Your task to perform on an android device: Open location settings Image 0: 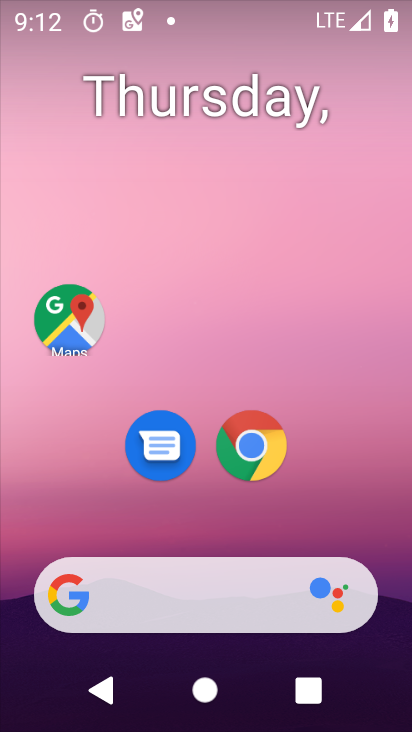
Step 0: drag from (196, 509) to (249, 197)
Your task to perform on an android device: Open location settings Image 1: 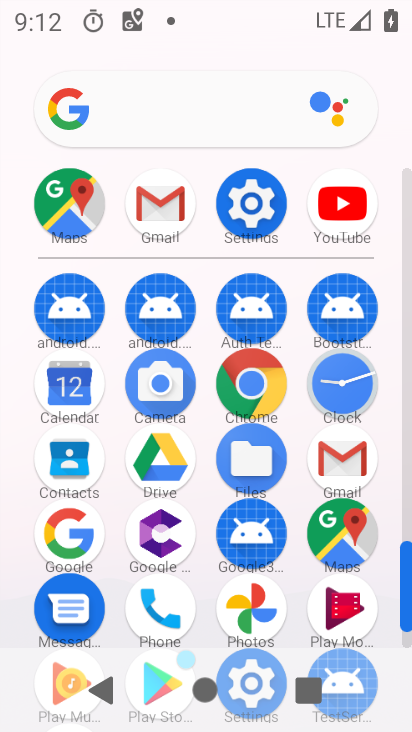
Step 1: click (273, 197)
Your task to perform on an android device: Open location settings Image 2: 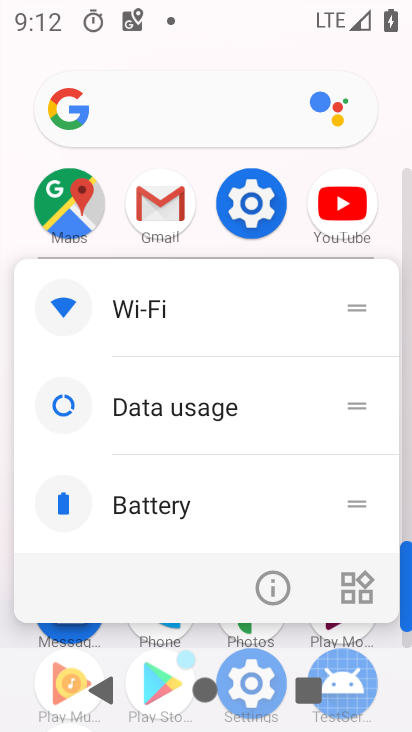
Step 2: click (274, 549)
Your task to perform on an android device: Open location settings Image 3: 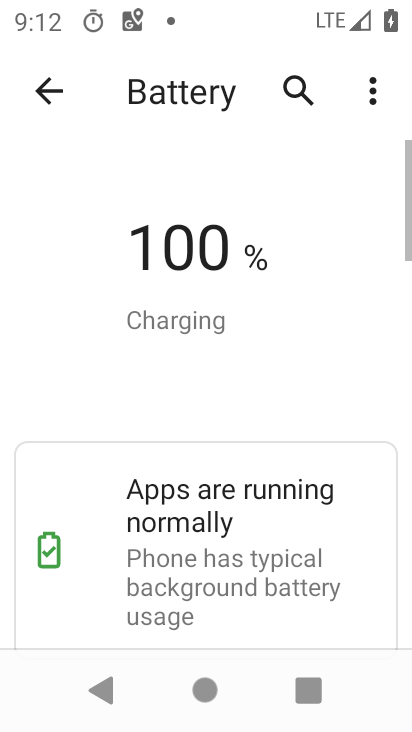
Step 3: click (51, 97)
Your task to perform on an android device: Open location settings Image 4: 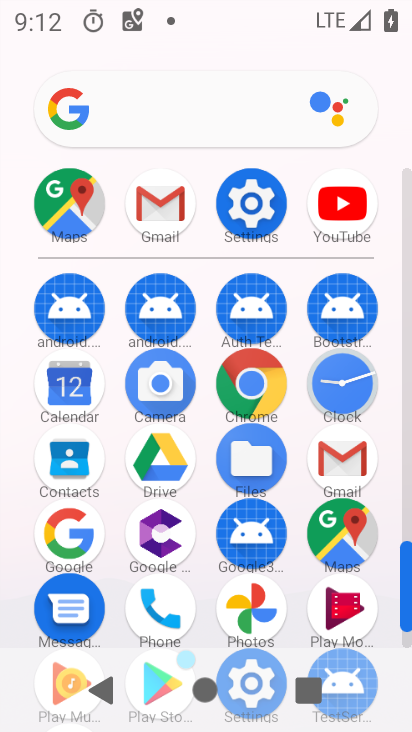
Step 4: click (248, 201)
Your task to perform on an android device: Open location settings Image 5: 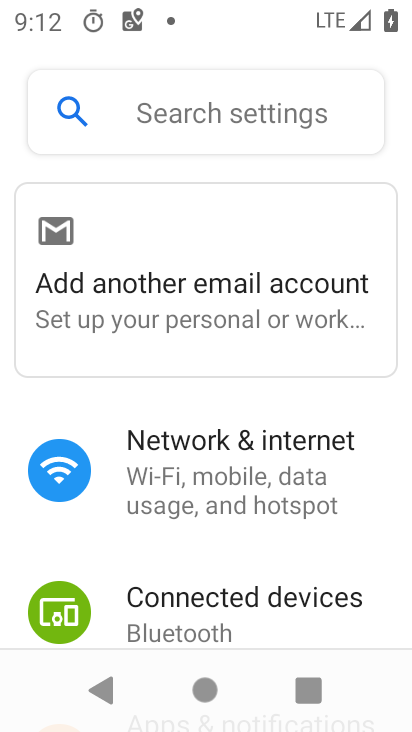
Step 5: drag from (205, 578) to (263, 332)
Your task to perform on an android device: Open location settings Image 6: 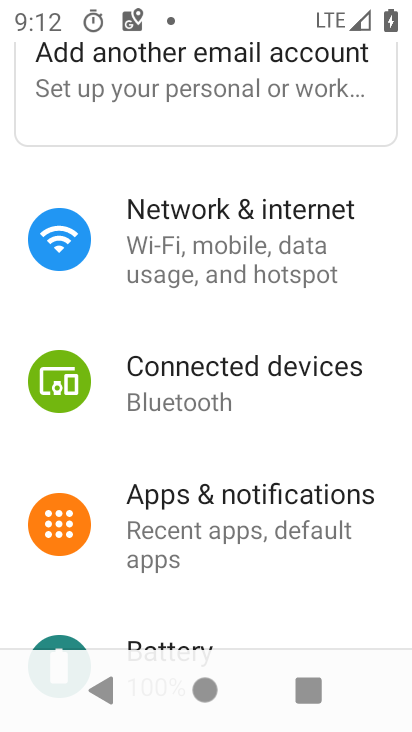
Step 6: drag from (243, 626) to (287, 261)
Your task to perform on an android device: Open location settings Image 7: 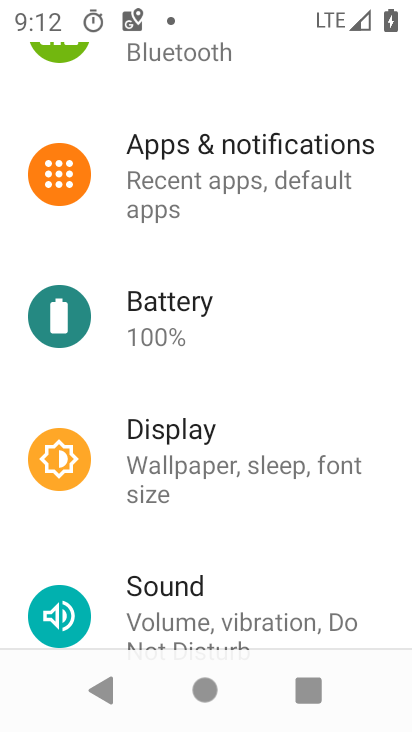
Step 7: drag from (207, 580) to (311, 168)
Your task to perform on an android device: Open location settings Image 8: 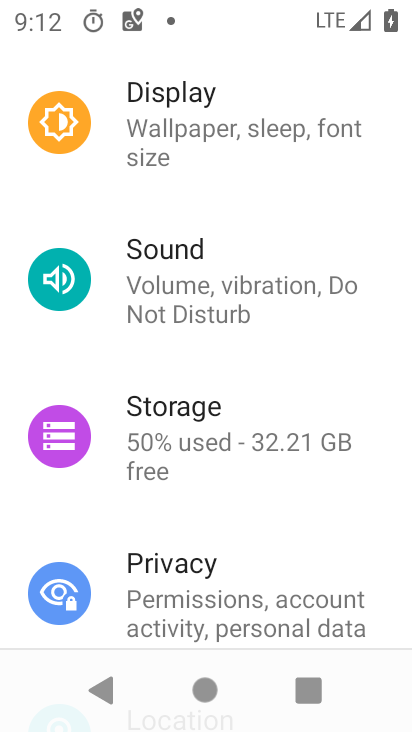
Step 8: drag from (260, 547) to (329, 204)
Your task to perform on an android device: Open location settings Image 9: 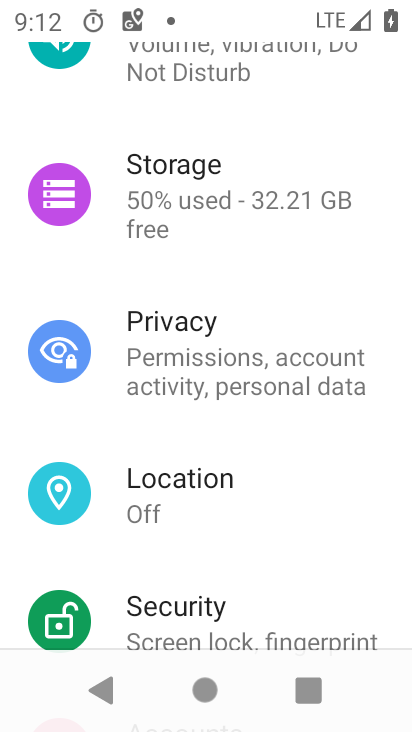
Step 9: click (234, 512)
Your task to perform on an android device: Open location settings Image 10: 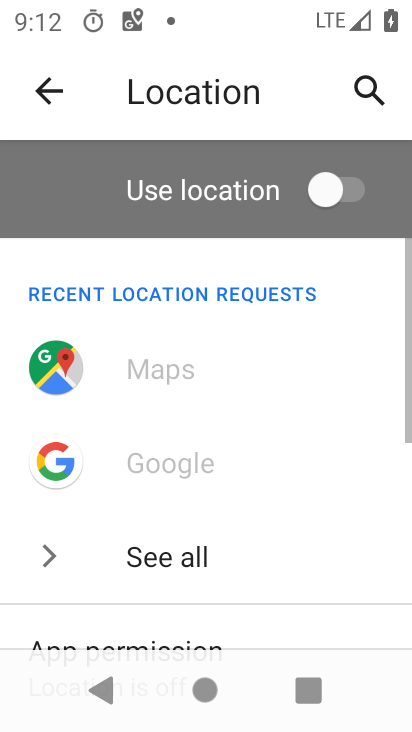
Step 10: task complete